Your task to perform on an android device: Open Chrome and go to the settings page Image 0: 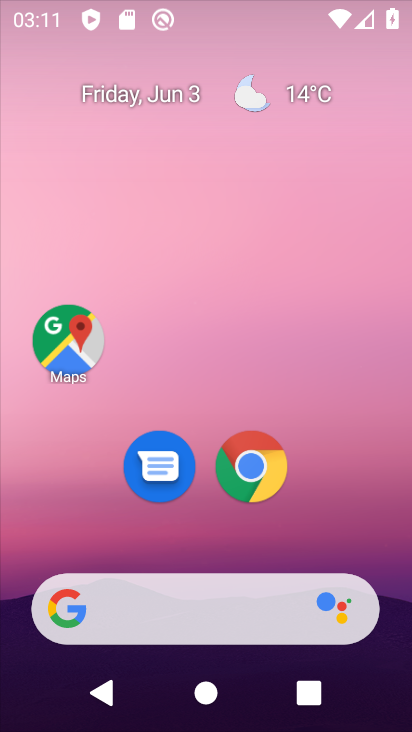
Step 0: press home button
Your task to perform on an android device: Open Chrome and go to the settings page Image 1: 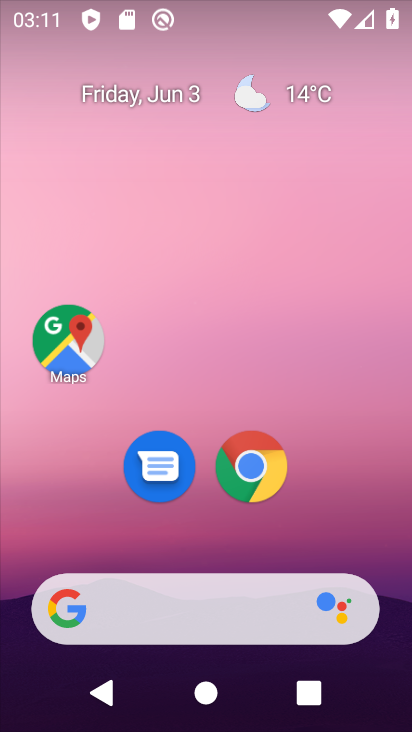
Step 1: click (249, 460)
Your task to perform on an android device: Open Chrome and go to the settings page Image 2: 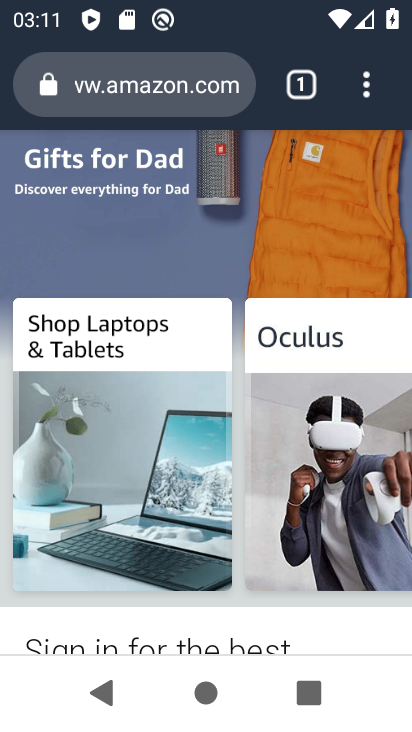
Step 2: click (367, 80)
Your task to perform on an android device: Open Chrome and go to the settings page Image 3: 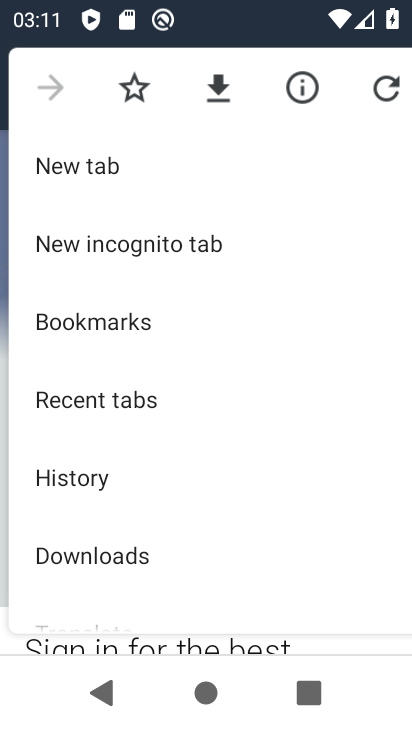
Step 3: drag from (216, 570) to (230, 123)
Your task to perform on an android device: Open Chrome and go to the settings page Image 4: 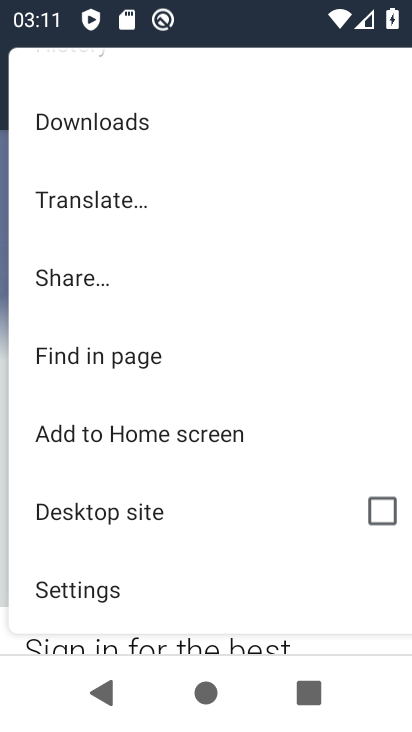
Step 4: click (135, 584)
Your task to perform on an android device: Open Chrome and go to the settings page Image 5: 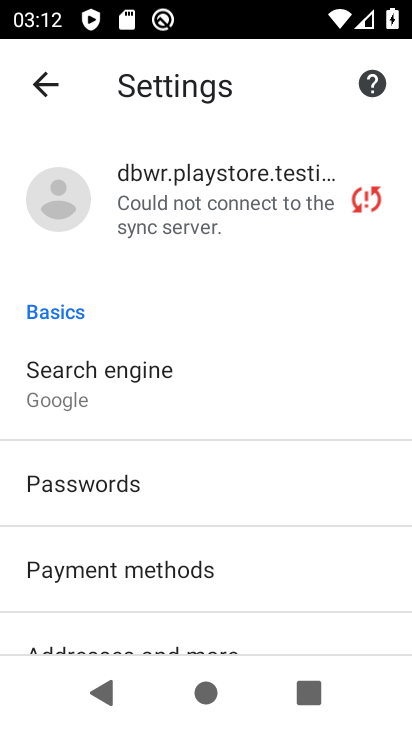
Step 5: task complete